Your task to perform on an android device: change the upload size in google photos Image 0: 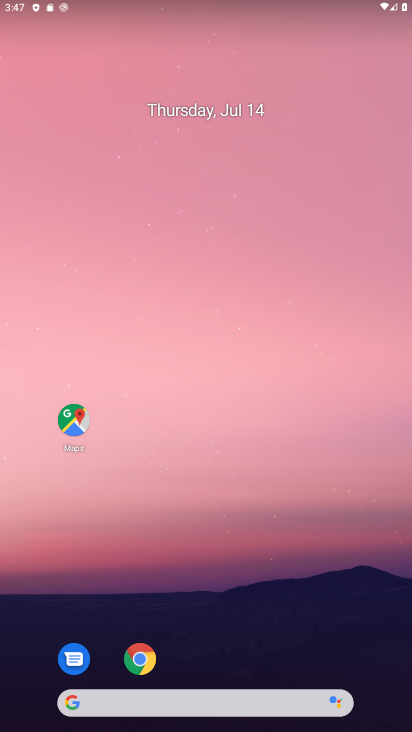
Step 0: drag from (247, 625) to (223, 200)
Your task to perform on an android device: change the upload size in google photos Image 1: 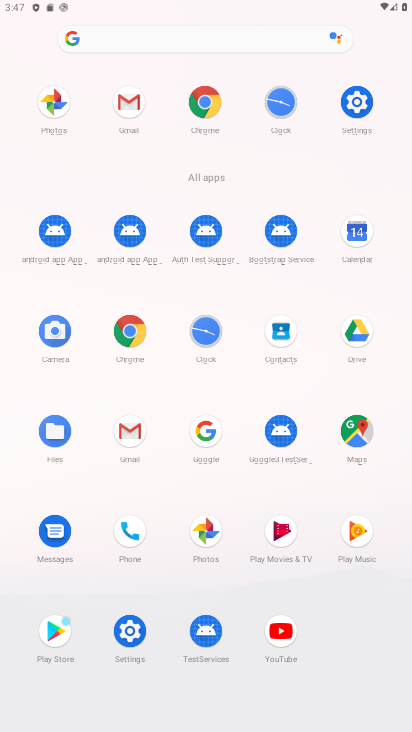
Step 1: click (216, 539)
Your task to perform on an android device: change the upload size in google photos Image 2: 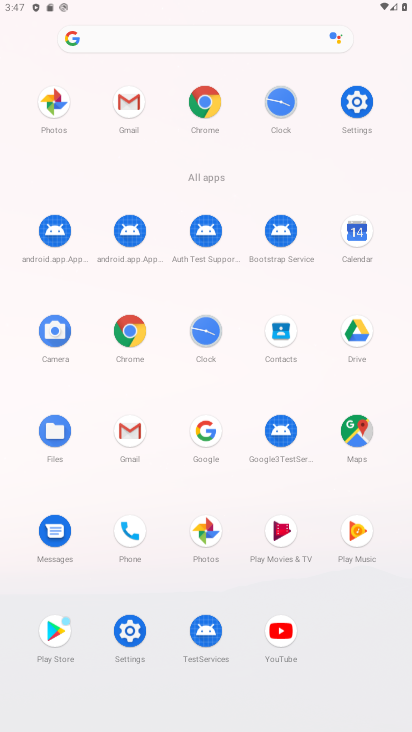
Step 2: click (207, 529)
Your task to perform on an android device: change the upload size in google photos Image 3: 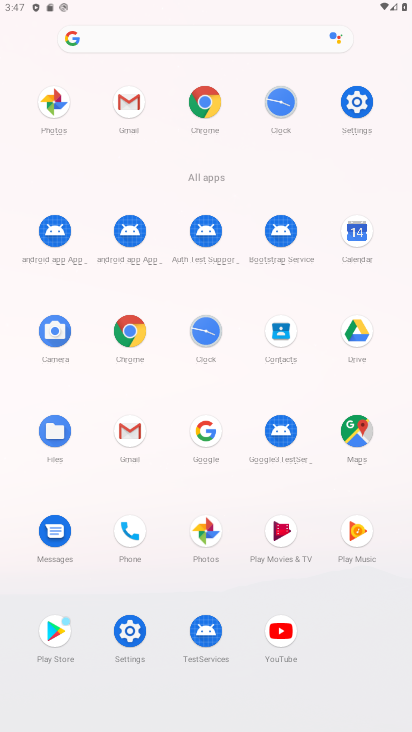
Step 3: click (211, 532)
Your task to perform on an android device: change the upload size in google photos Image 4: 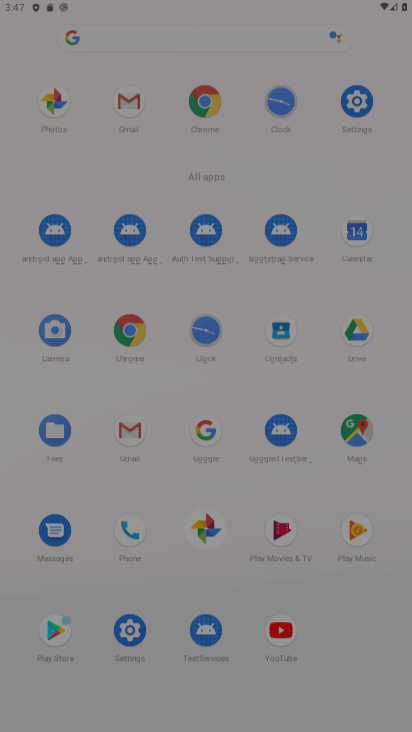
Step 4: click (174, 516)
Your task to perform on an android device: change the upload size in google photos Image 5: 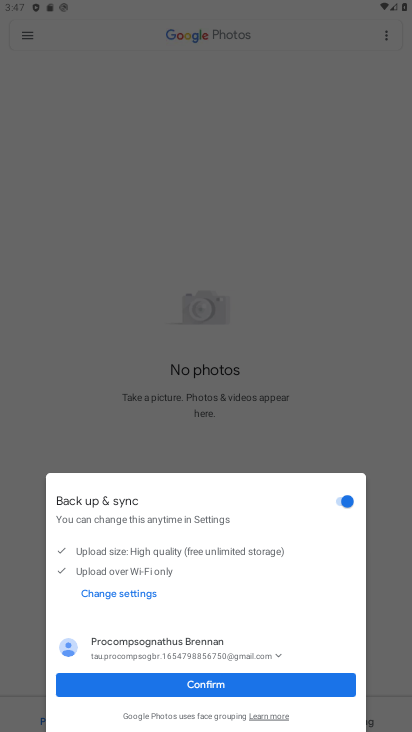
Step 5: drag from (298, 436) to (296, 278)
Your task to perform on an android device: change the upload size in google photos Image 6: 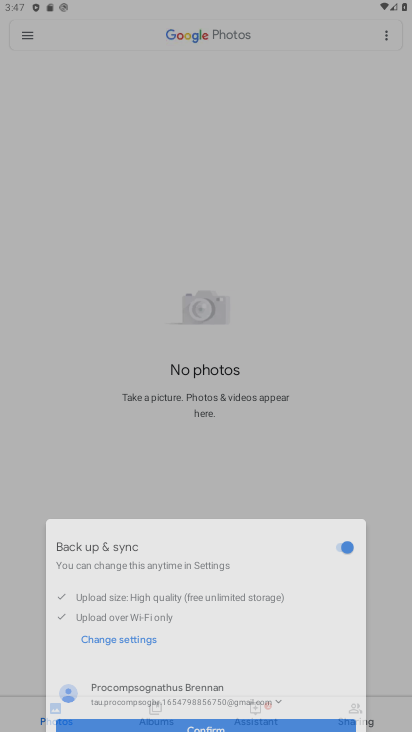
Step 6: click (323, 181)
Your task to perform on an android device: change the upload size in google photos Image 7: 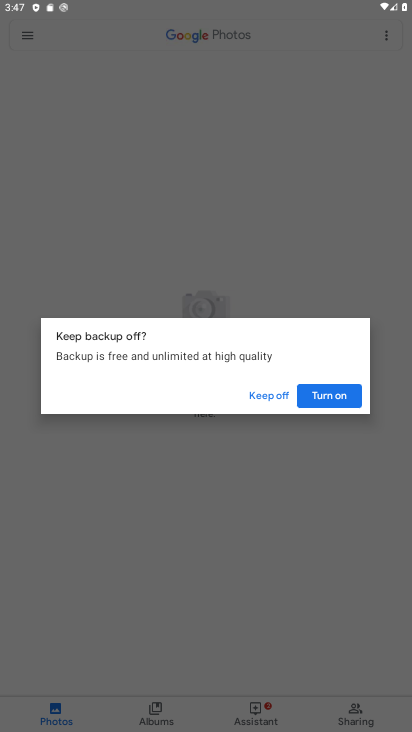
Step 7: click (325, 187)
Your task to perform on an android device: change the upload size in google photos Image 8: 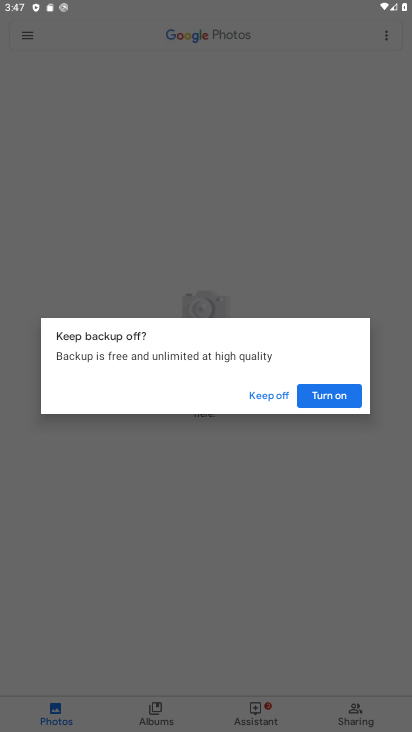
Step 8: click (334, 204)
Your task to perform on an android device: change the upload size in google photos Image 9: 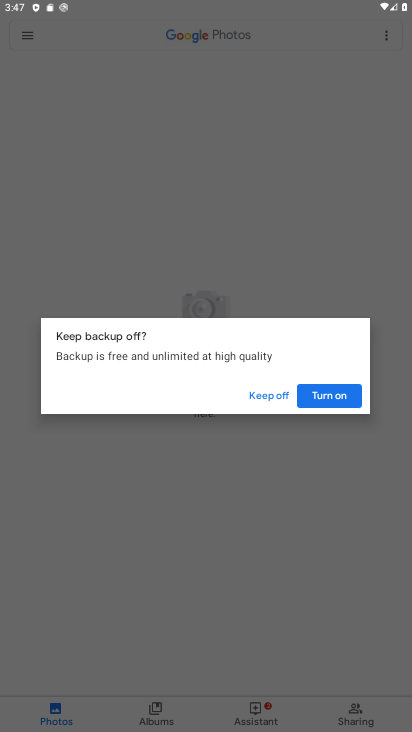
Step 9: click (267, 393)
Your task to perform on an android device: change the upload size in google photos Image 10: 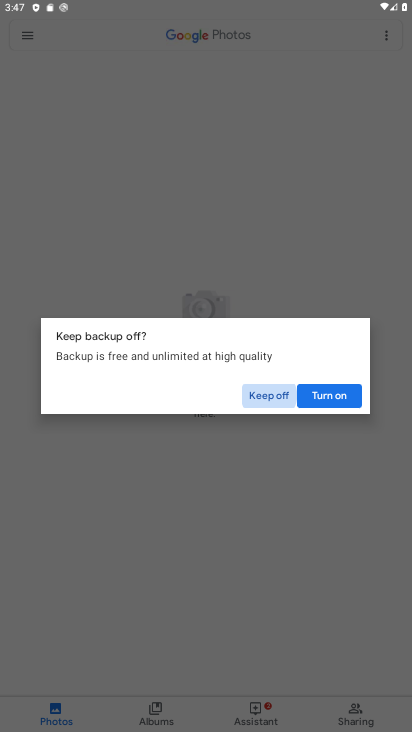
Step 10: click (267, 393)
Your task to perform on an android device: change the upload size in google photos Image 11: 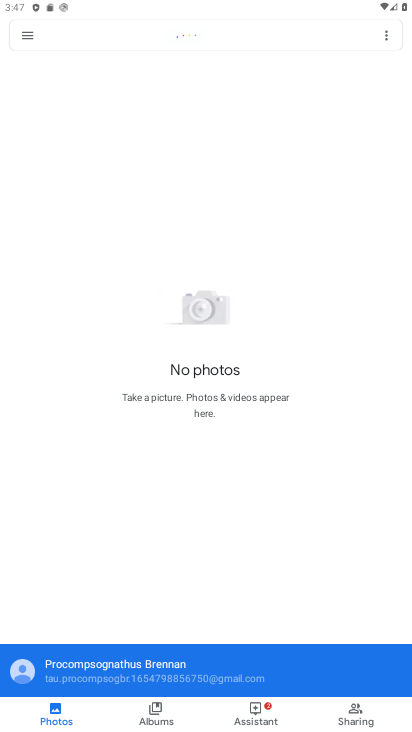
Step 11: drag from (30, 43) to (36, 465)
Your task to perform on an android device: change the upload size in google photos Image 12: 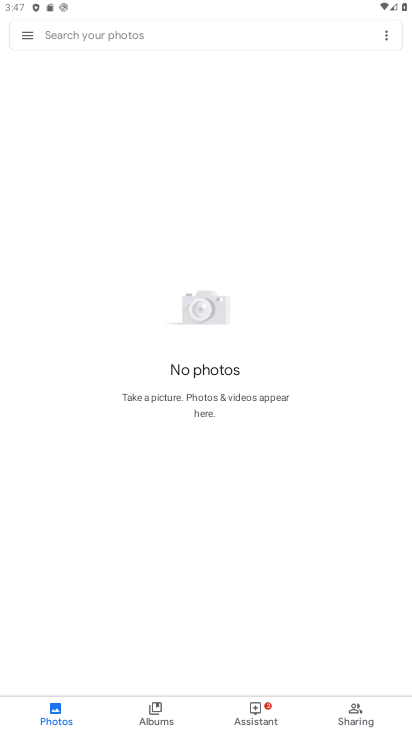
Step 12: click (24, 39)
Your task to perform on an android device: change the upload size in google photos Image 13: 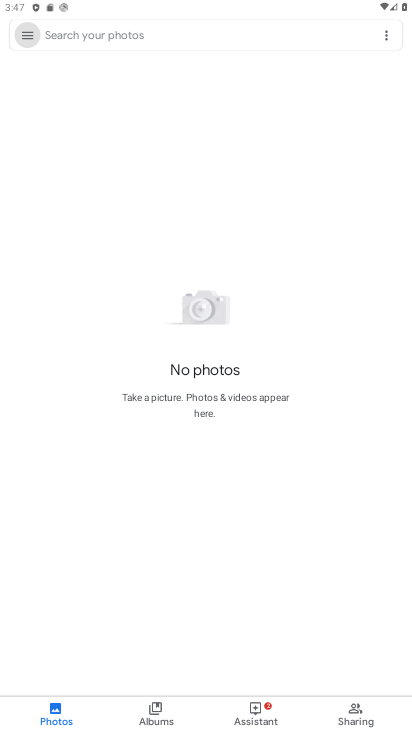
Step 13: click (25, 40)
Your task to perform on an android device: change the upload size in google photos Image 14: 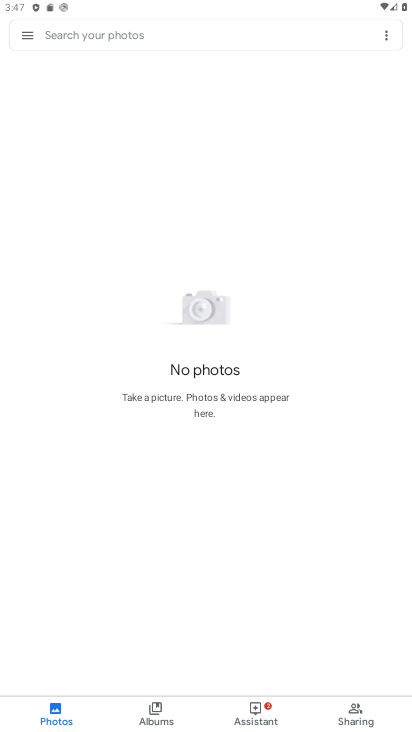
Step 14: click (25, 44)
Your task to perform on an android device: change the upload size in google photos Image 15: 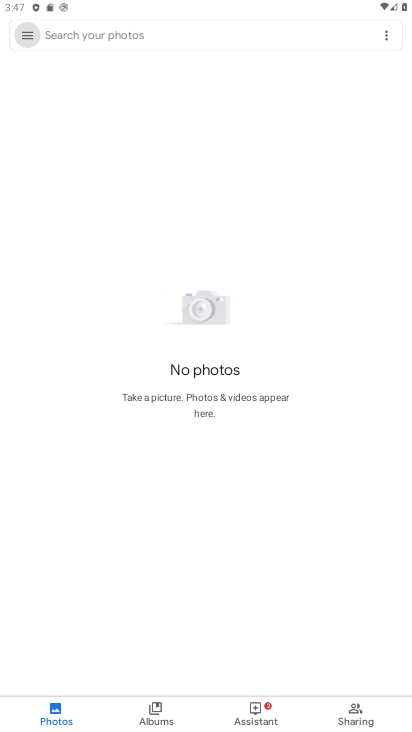
Step 15: click (26, 40)
Your task to perform on an android device: change the upload size in google photos Image 16: 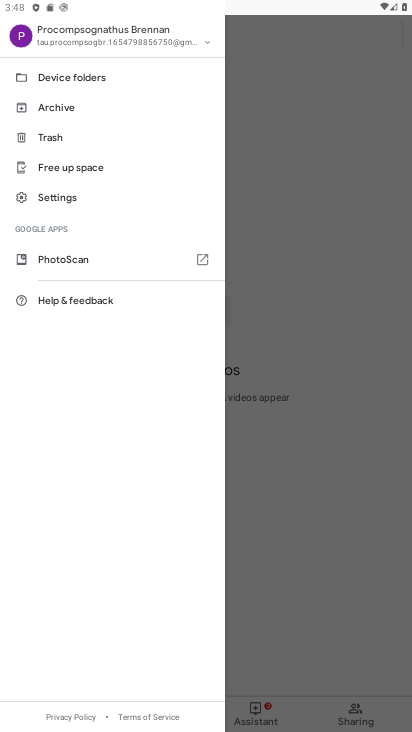
Step 16: click (60, 201)
Your task to perform on an android device: change the upload size in google photos Image 17: 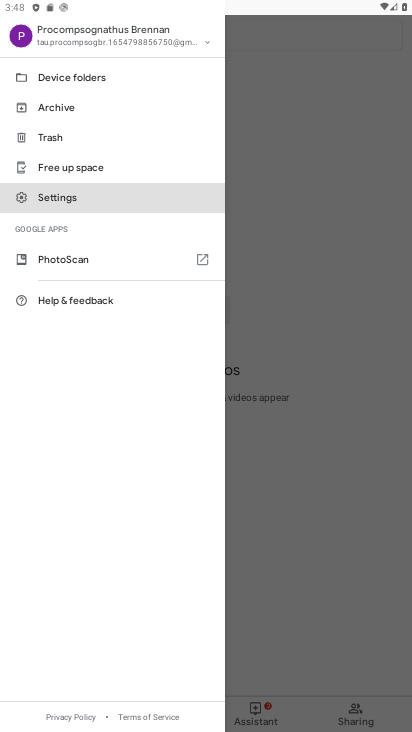
Step 17: click (60, 198)
Your task to perform on an android device: change the upload size in google photos Image 18: 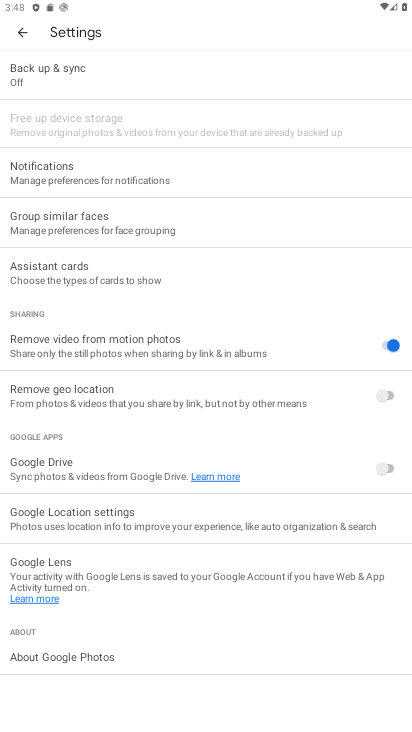
Step 18: click (28, 73)
Your task to perform on an android device: change the upload size in google photos Image 19: 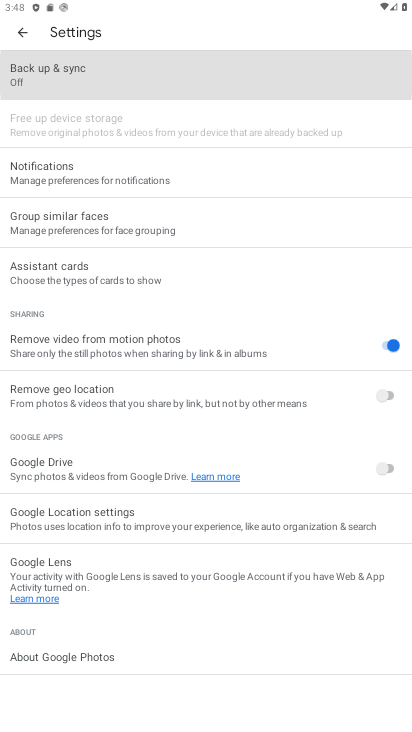
Step 19: click (29, 56)
Your task to perform on an android device: change the upload size in google photos Image 20: 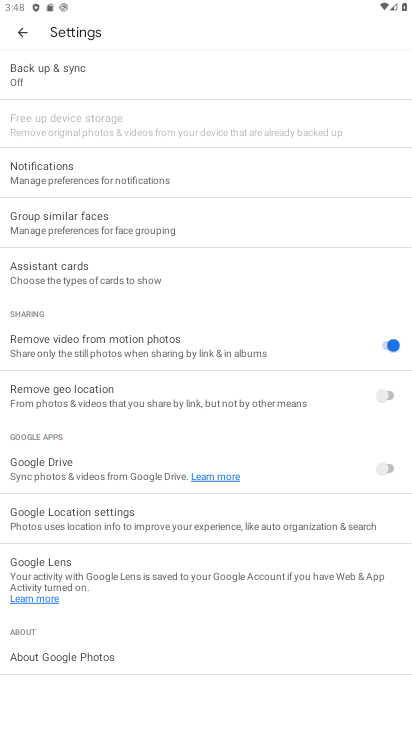
Step 20: click (27, 59)
Your task to perform on an android device: change the upload size in google photos Image 21: 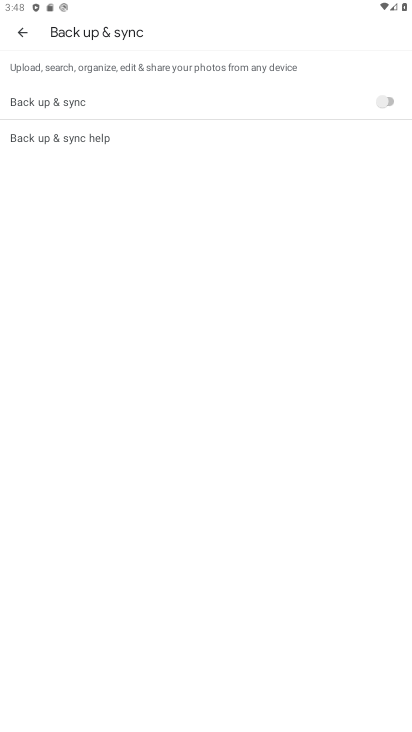
Step 21: click (70, 109)
Your task to perform on an android device: change the upload size in google photos Image 22: 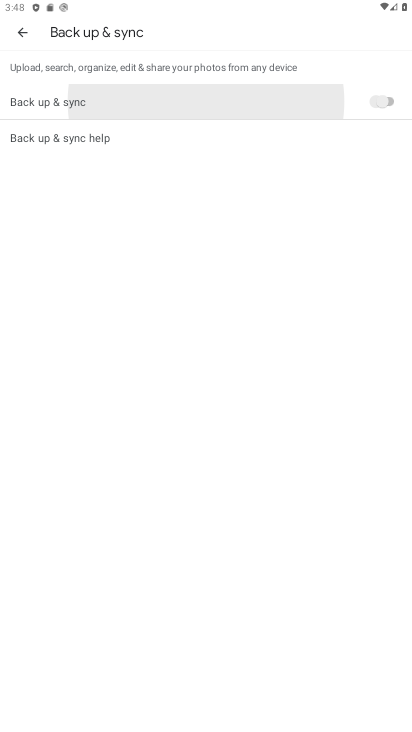
Step 22: click (70, 109)
Your task to perform on an android device: change the upload size in google photos Image 23: 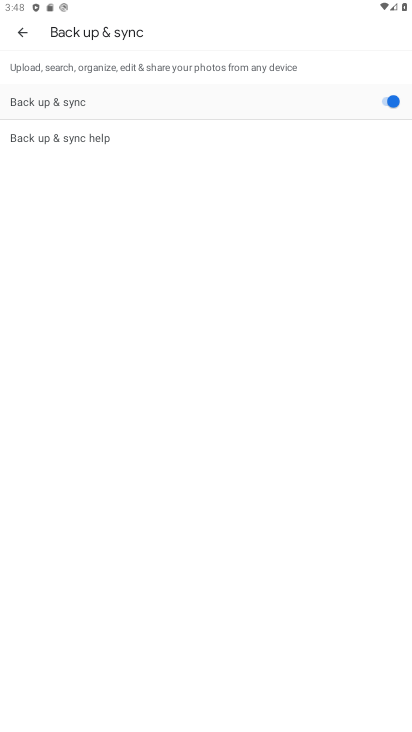
Step 23: click (71, 108)
Your task to perform on an android device: change the upload size in google photos Image 24: 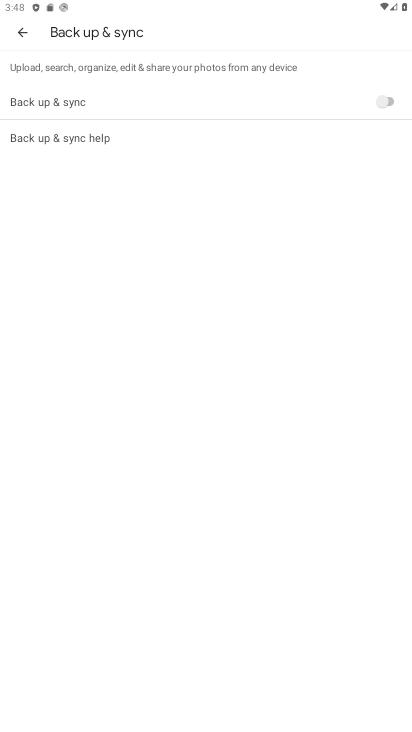
Step 24: click (45, 103)
Your task to perform on an android device: change the upload size in google photos Image 25: 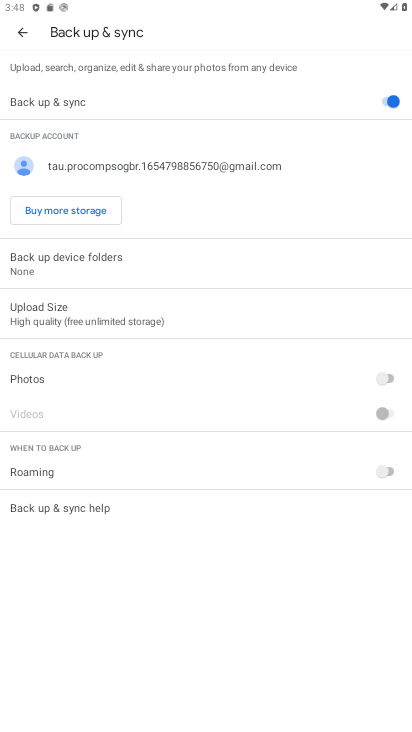
Step 25: click (30, 300)
Your task to perform on an android device: change the upload size in google photos Image 26: 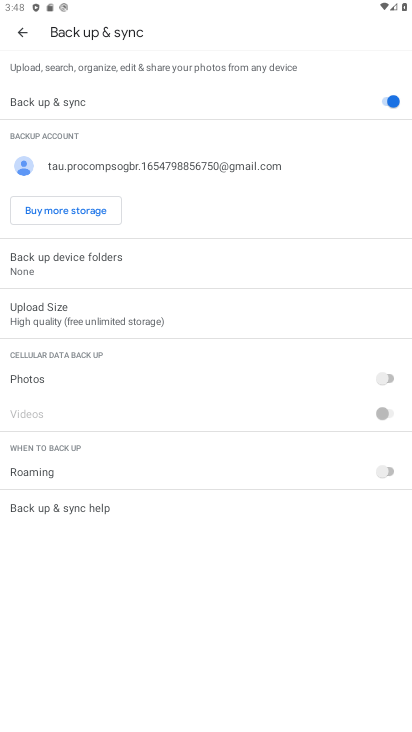
Step 26: click (30, 303)
Your task to perform on an android device: change the upload size in google photos Image 27: 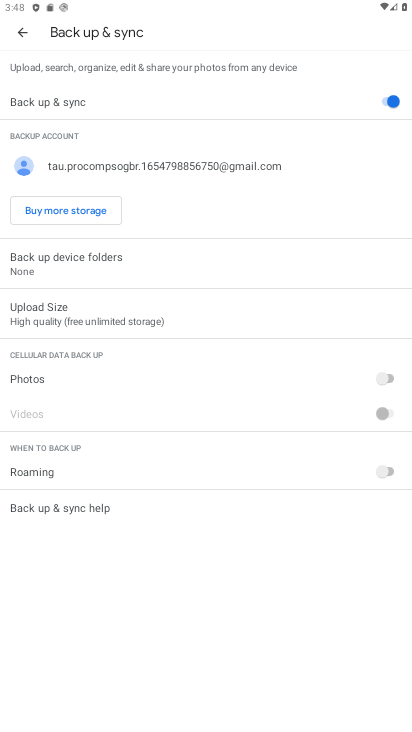
Step 27: click (45, 312)
Your task to perform on an android device: change the upload size in google photos Image 28: 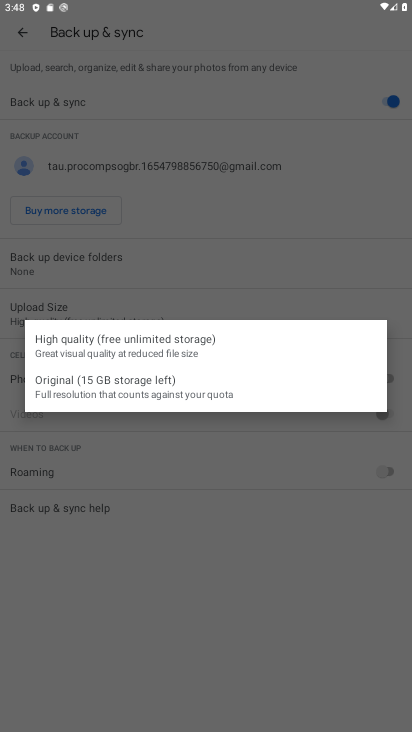
Step 28: click (91, 390)
Your task to perform on an android device: change the upload size in google photos Image 29: 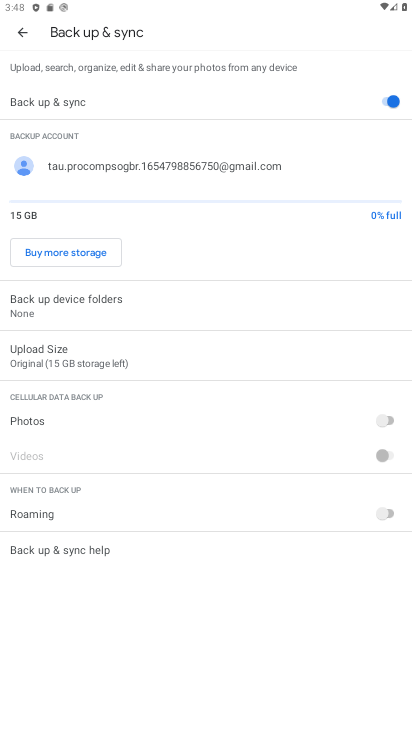
Step 29: task complete